Your task to perform on an android device: change the clock display to digital Image 0: 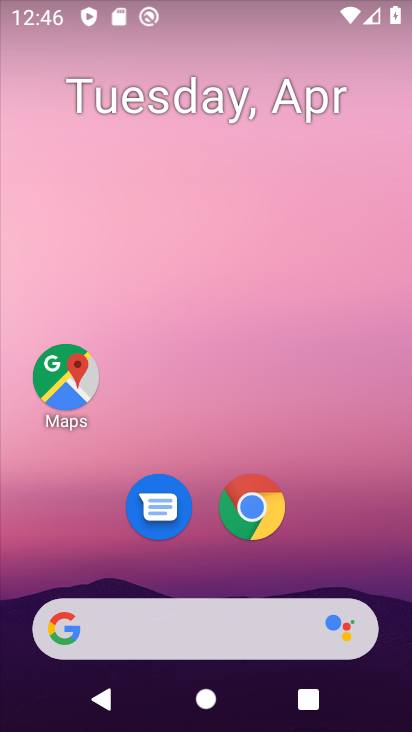
Step 0: drag from (265, 572) to (268, 166)
Your task to perform on an android device: change the clock display to digital Image 1: 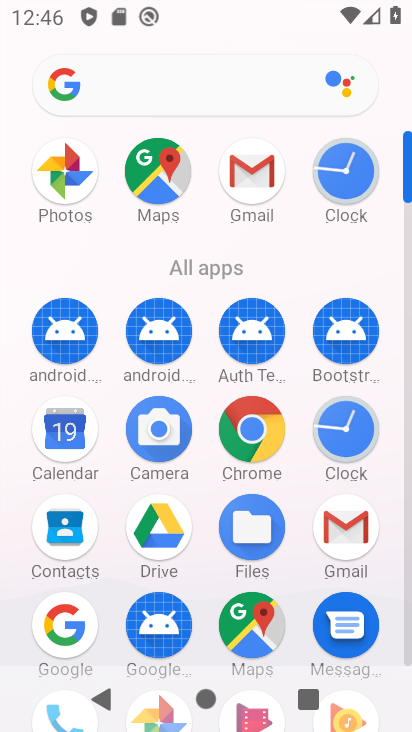
Step 1: click (334, 449)
Your task to perform on an android device: change the clock display to digital Image 2: 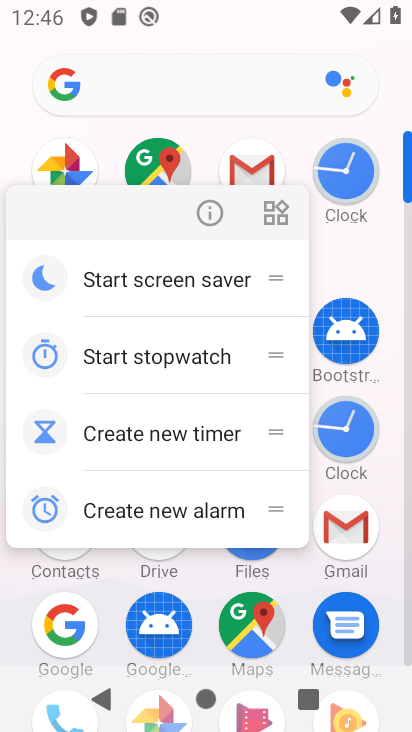
Step 2: click (338, 419)
Your task to perform on an android device: change the clock display to digital Image 3: 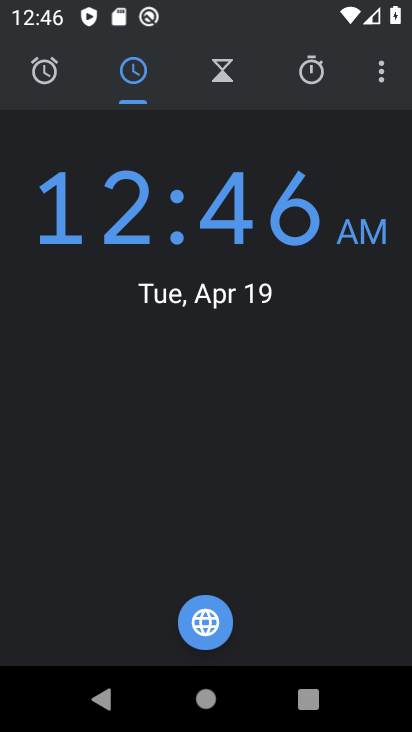
Step 3: click (383, 70)
Your task to perform on an android device: change the clock display to digital Image 4: 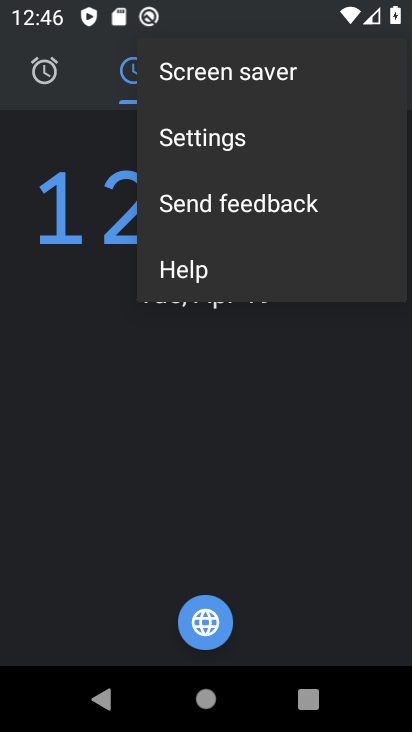
Step 4: click (196, 148)
Your task to perform on an android device: change the clock display to digital Image 5: 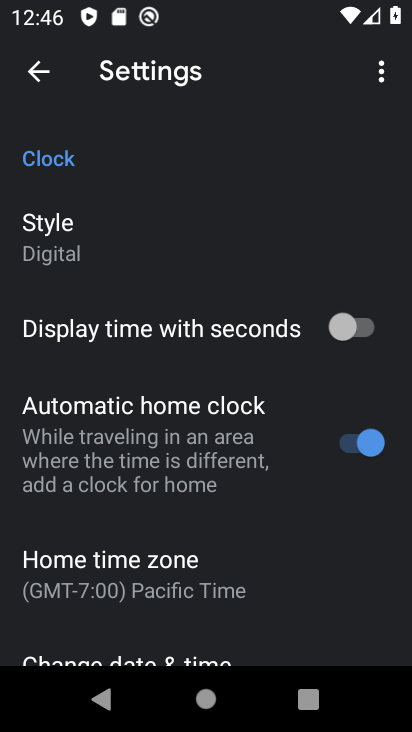
Step 5: click (60, 233)
Your task to perform on an android device: change the clock display to digital Image 6: 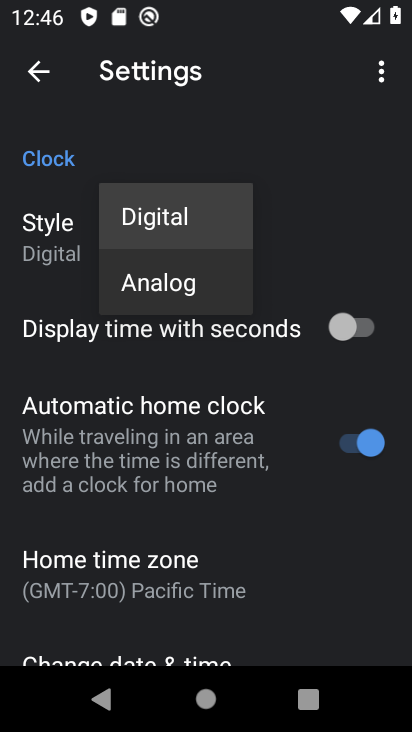
Step 6: task complete